Your task to perform on an android device: all mails in gmail Image 0: 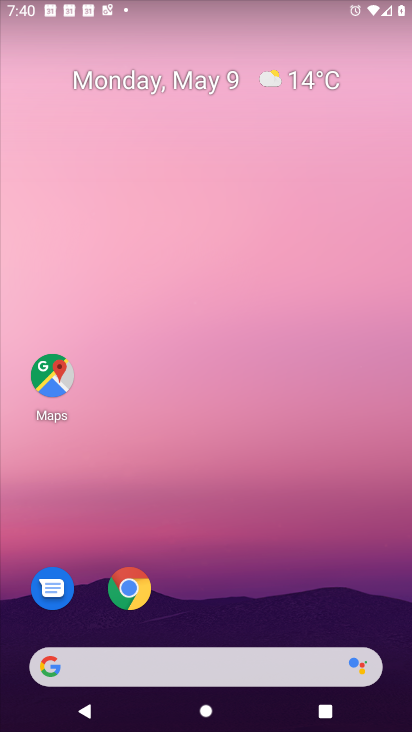
Step 0: drag from (317, 614) to (319, 92)
Your task to perform on an android device: all mails in gmail Image 1: 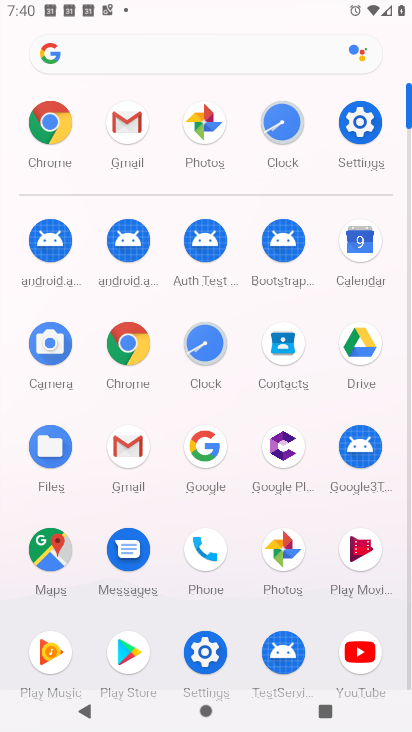
Step 1: click (136, 459)
Your task to perform on an android device: all mails in gmail Image 2: 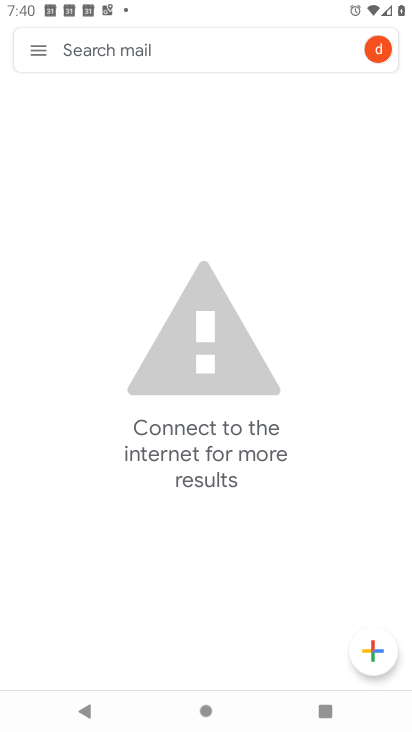
Step 2: click (41, 47)
Your task to perform on an android device: all mails in gmail Image 3: 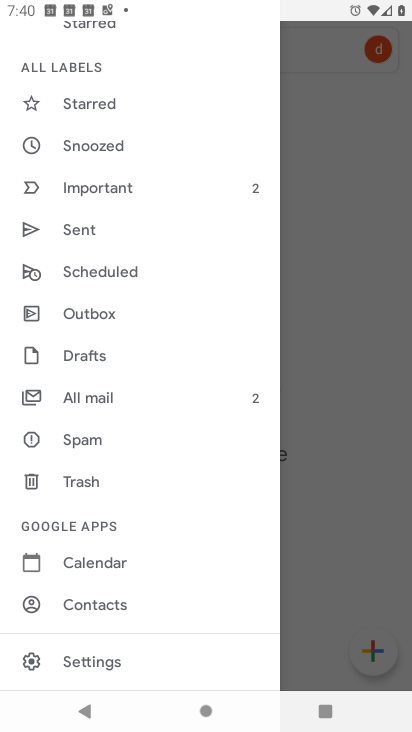
Step 3: click (112, 383)
Your task to perform on an android device: all mails in gmail Image 4: 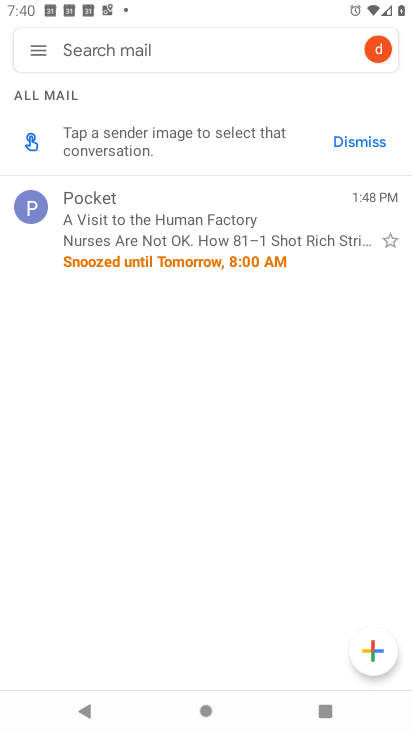
Step 4: task complete